Your task to perform on an android device: open device folders in google photos Image 0: 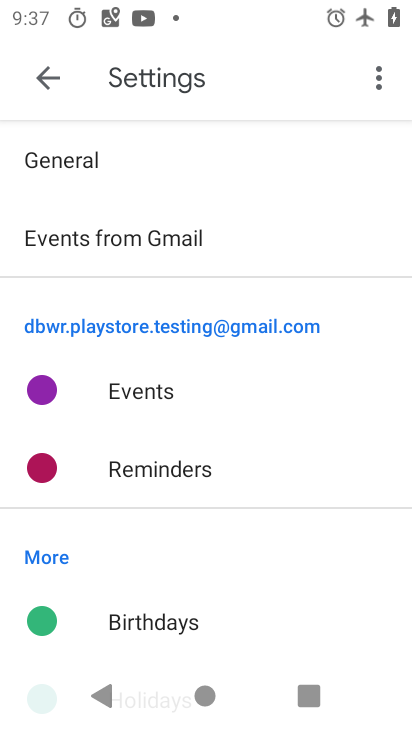
Step 0: press home button
Your task to perform on an android device: open device folders in google photos Image 1: 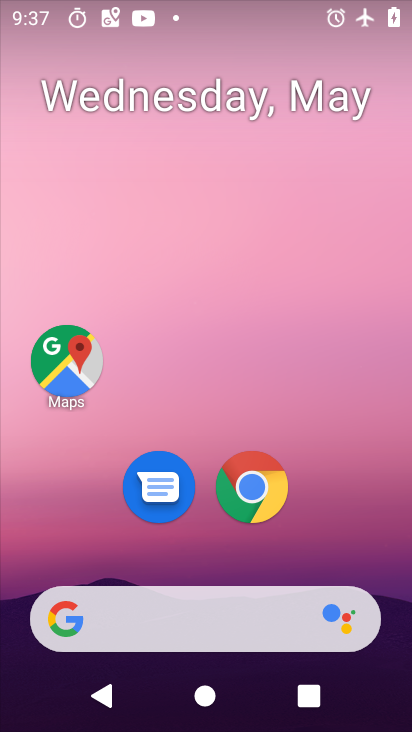
Step 1: drag from (206, 537) to (210, 212)
Your task to perform on an android device: open device folders in google photos Image 2: 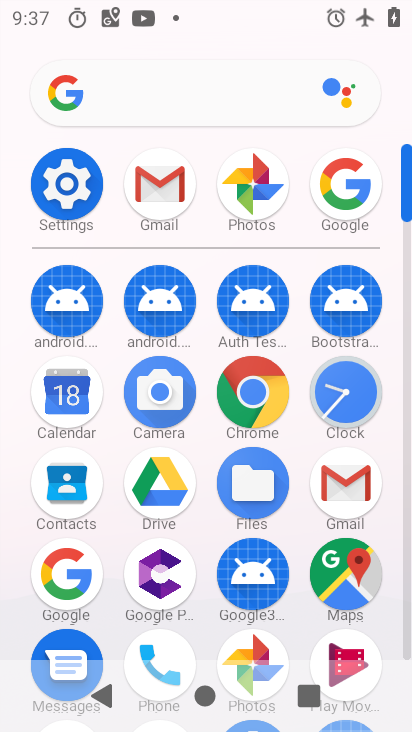
Step 2: click (251, 192)
Your task to perform on an android device: open device folders in google photos Image 3: 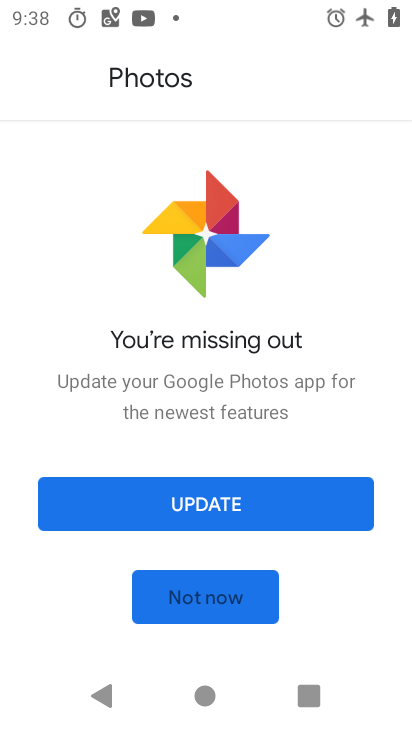
Step 3: click (222, 586)
Your task to perform on an android device: open device folders in google photos Image 4: 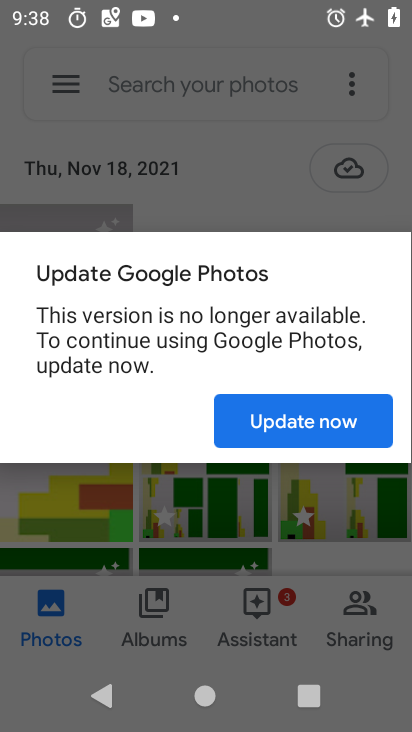
Step 4: click (262, 417)
Your task to perform on an android device: open device folders in google photos Image 5: 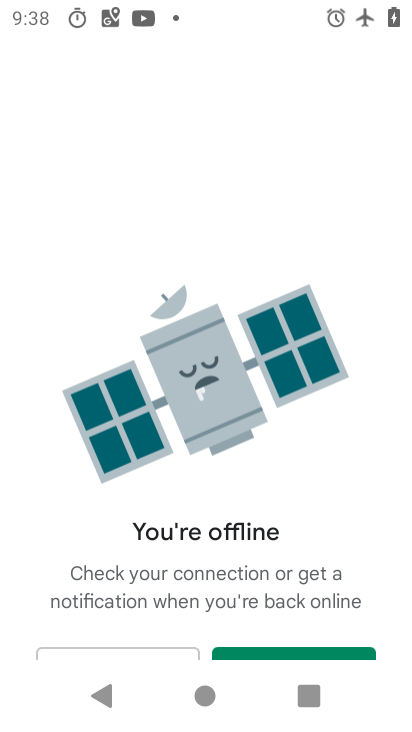
Step 5: press back button
Your task to perform on an android device: open device folders in google photos Image 6: 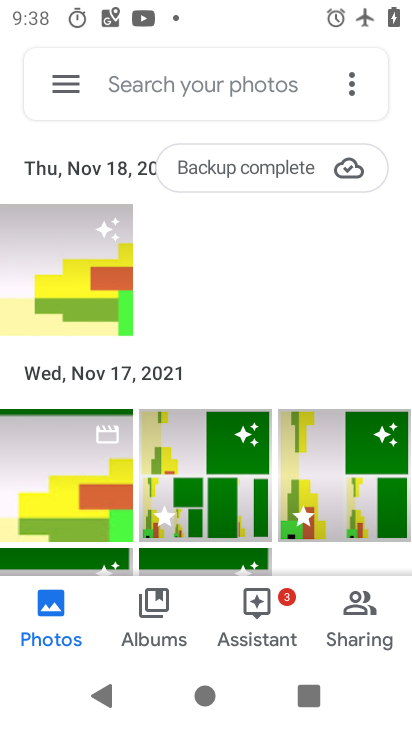
Step 6: click (65, 66)
Your task to perform on an android device: open device folders in google photos Image 7: 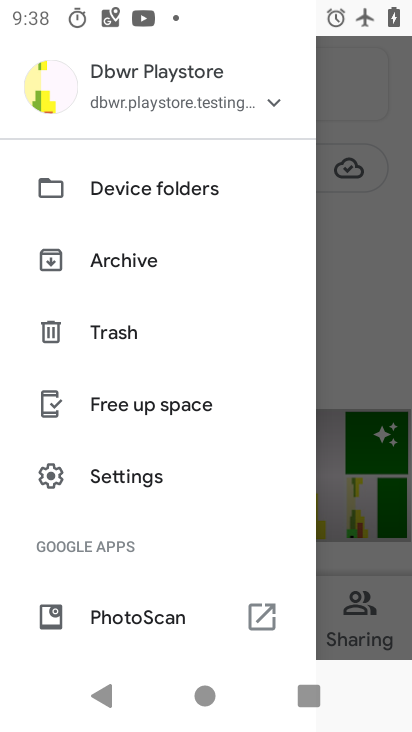
Step 7: click (105, 171)
Your task to perform on an android device: open device folders in google photos Image 8: 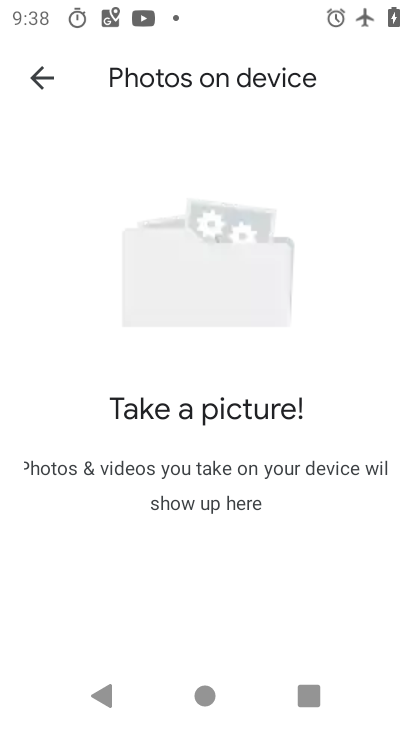
Step 8: task complete